Your task to perform on an android device: Open Maps and search for coffee Image 0: 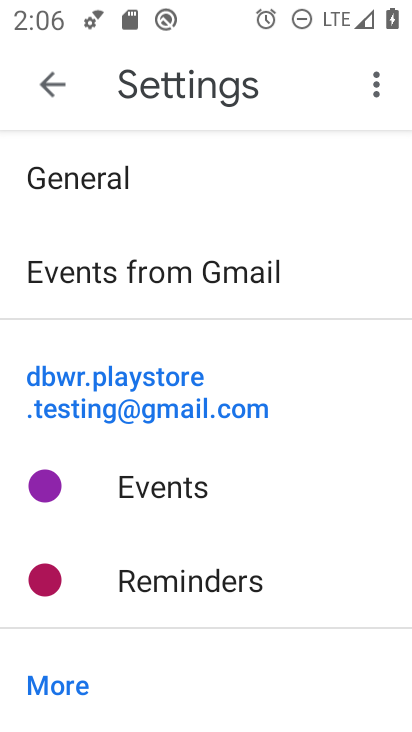
Step 0: press home button
Your task to perform on an android device: Open Maps and search for coffee Image 1: 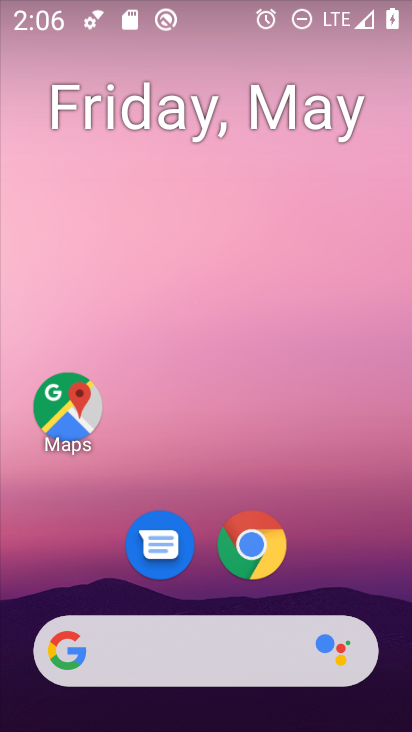
Step 1: click (68, 409)
Your task to perform on an android device: Open Maps and search for coffee Image 2: 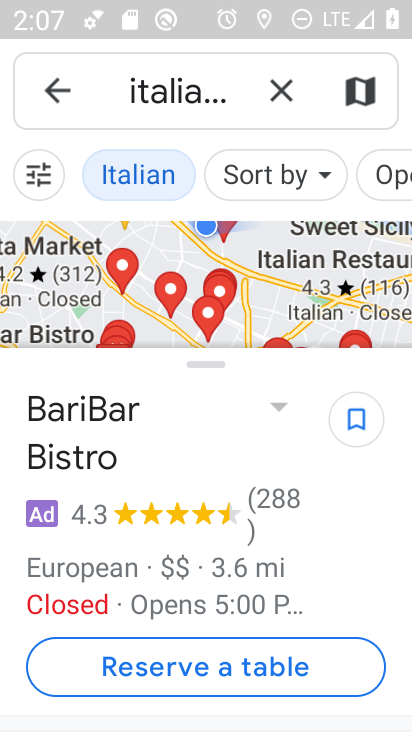
Step 2: click (284, 90)
Your task to perform on an android device: Open Maps and search for coffee Image 3: 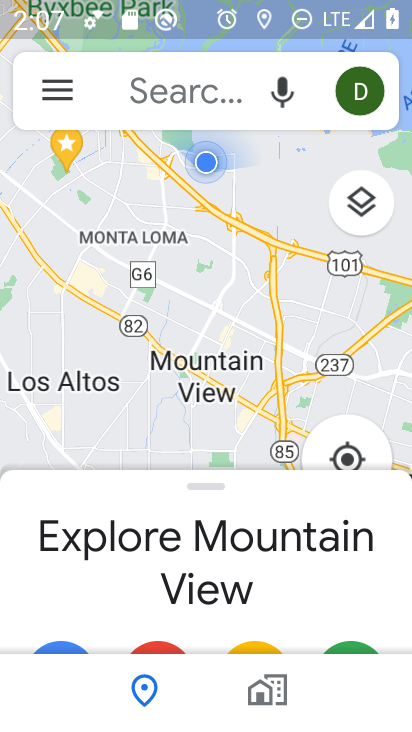
Step 3: click (178, 79)
Your task to perform on an android device: Open Maps and search for coffee Image 4: 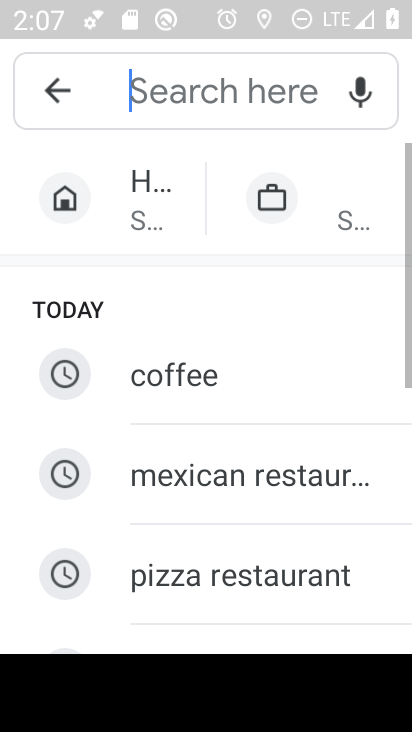
Step 4: click (201, 370)
Your task to perform on an android device: Open Maps and search for coffee Image 5: 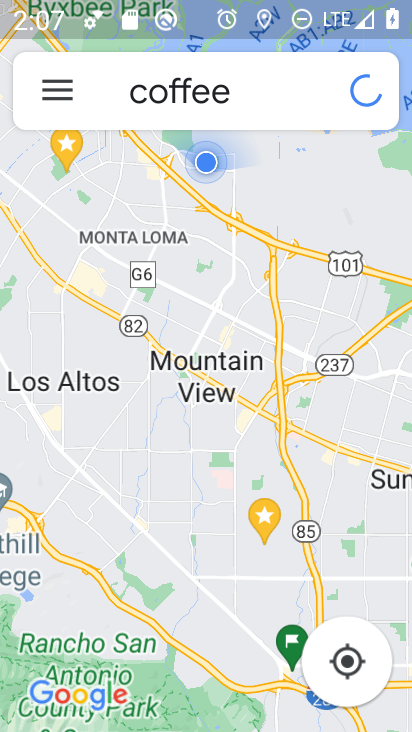
Step 5: task complete